Your task to perform on an android device: check the backup settings in the google photos Image 0: 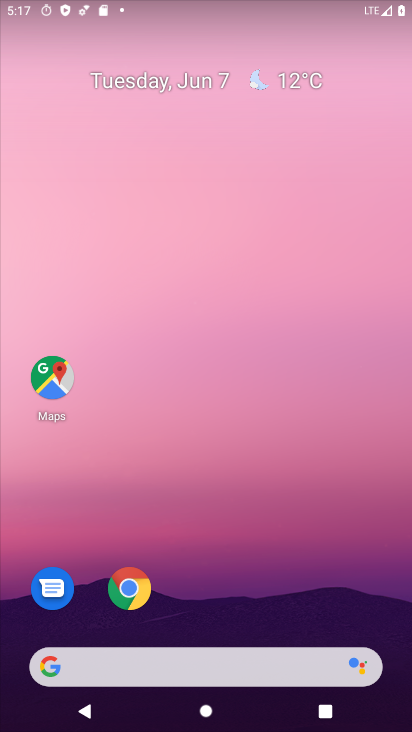
Step 0: drag from (217, 643) to (196, 140)
Your task to perform on an android device: check the backup settings in the google photos Image 1: 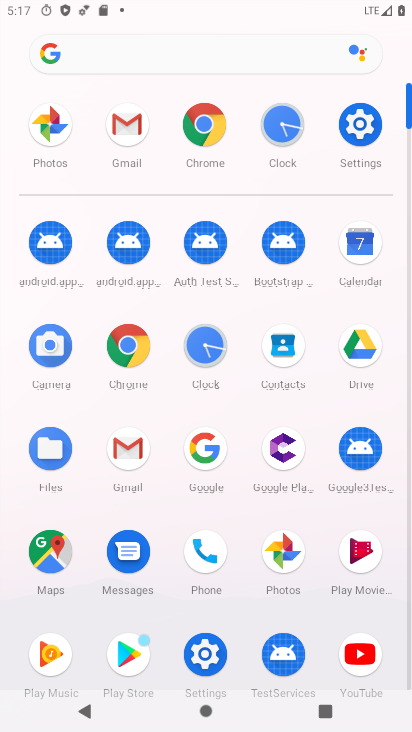
Step 1: click (279, 553)
Your task to perform on an android device: check the backup settings in the google photos Image 2: 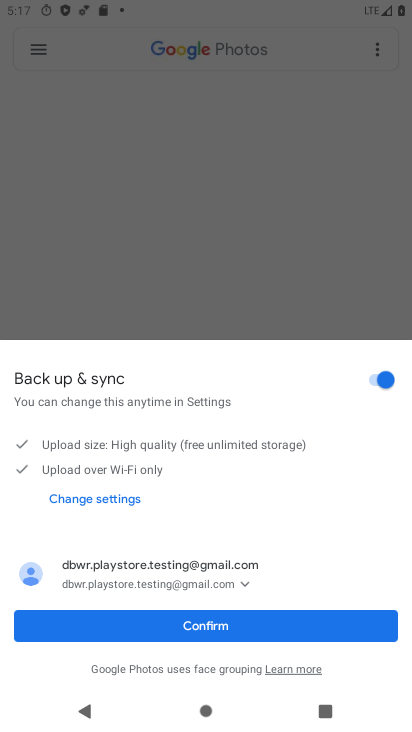
Step 2: click (190, 625)
Your task to perform on an android device: check the backup settings in the google photos Image 3: 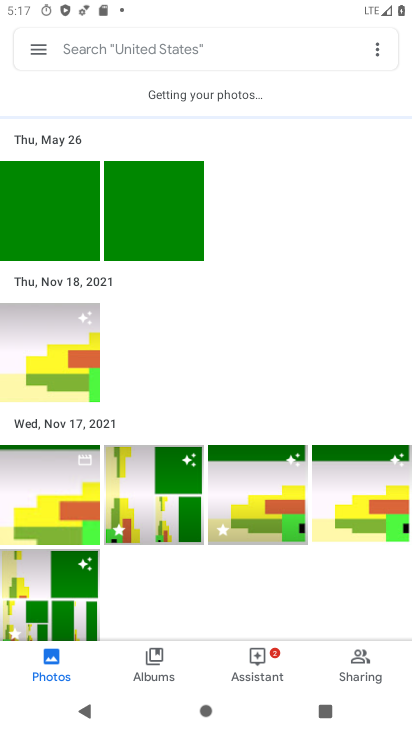
Step 3: click (33, 42)
Your task to perform on an android device: check the backup settings in the google photos Image 4: 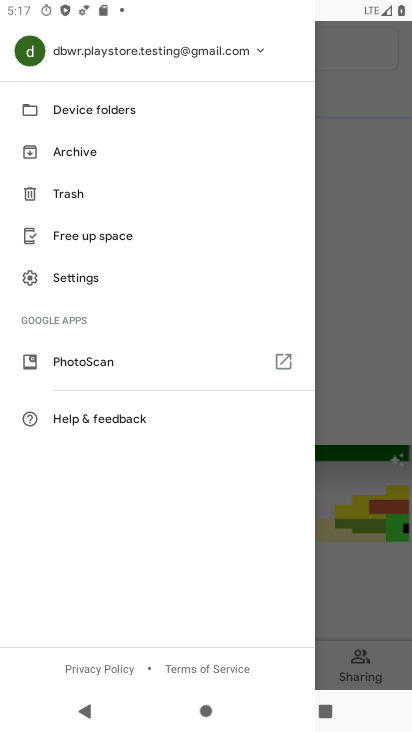
Step 4: click (72, 276)
Your task to perform on an android device: check the backup settings in the google photos Image 5: 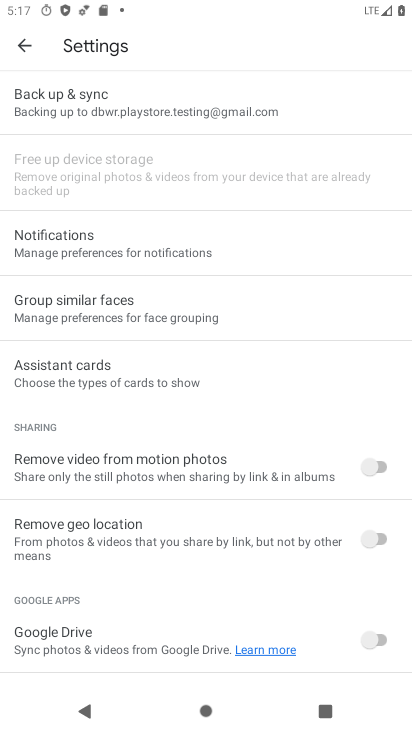
Step 5: click (92, 108)
Your task to perform on an android device: check the backup settings in the google photos Image 6: 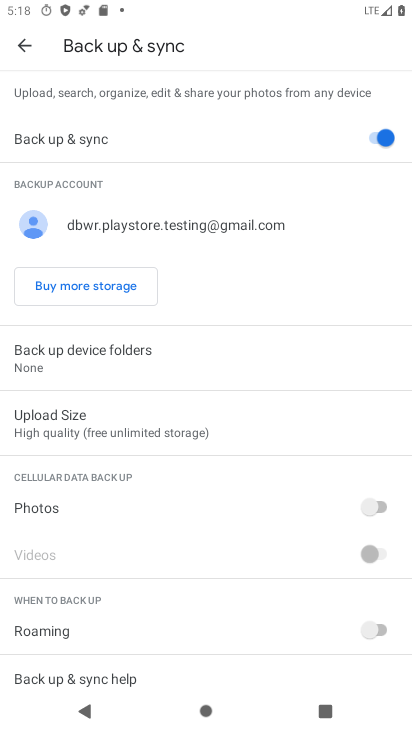
Step 6: task complete